Your task to perform on an android device: Open Wikipedia Image 0: 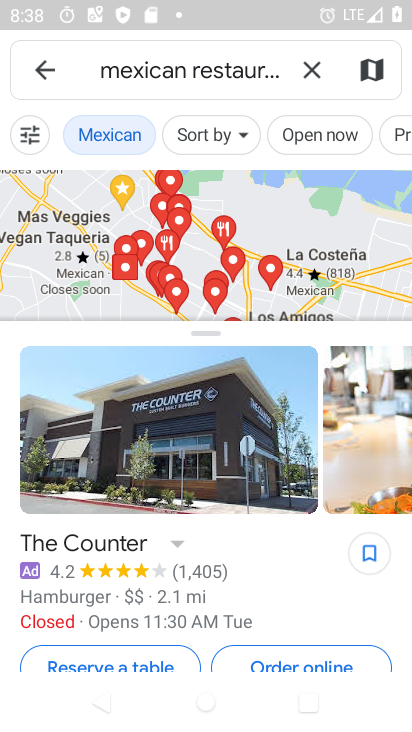
Step 0: press home button
Your task to perform on an android device: Open Wikipedia Image 1: 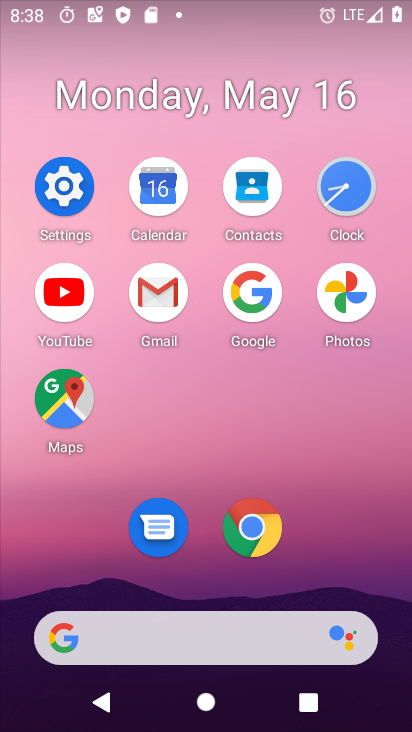
Step 1: click (249, 546)
Your task to perform on an android device: Open Wikipedia Image 2: 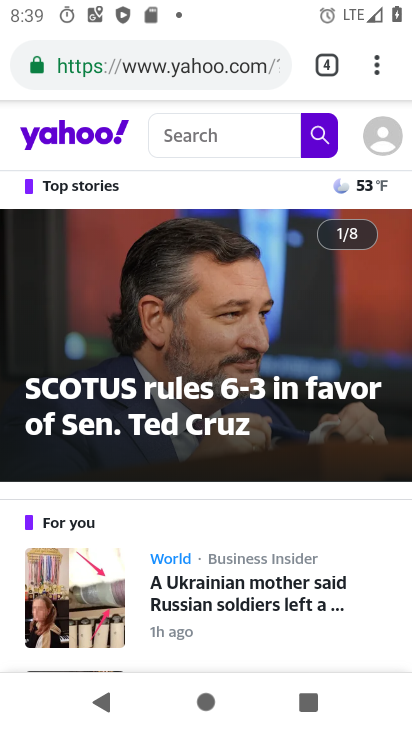
Step 2: click (321, 59)
Your task to perform on an android device: Open Wikipedia Image 3: 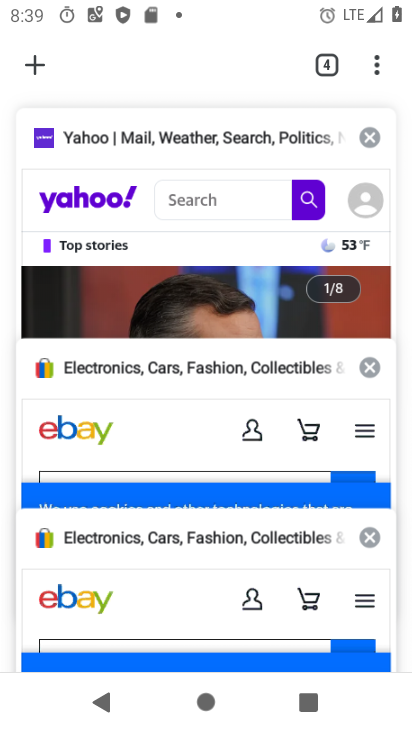
Step 3: click (25, 58)
Your task to perform on an android device: Open Wikipedia Image 4: 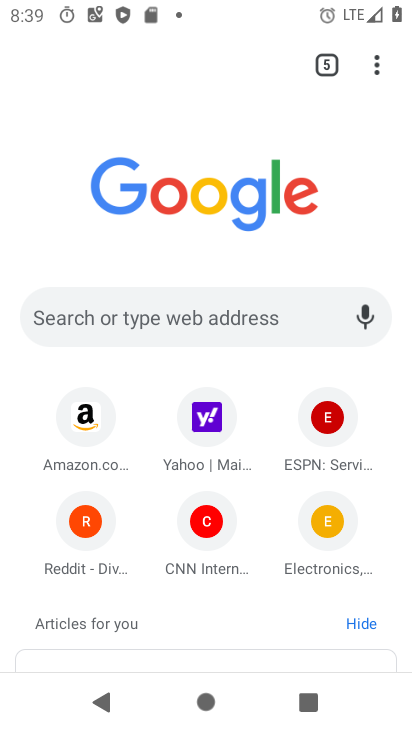
Step 4: click (171, 313)
Your task to perform on an android device: Open Wikipedia Image 5: 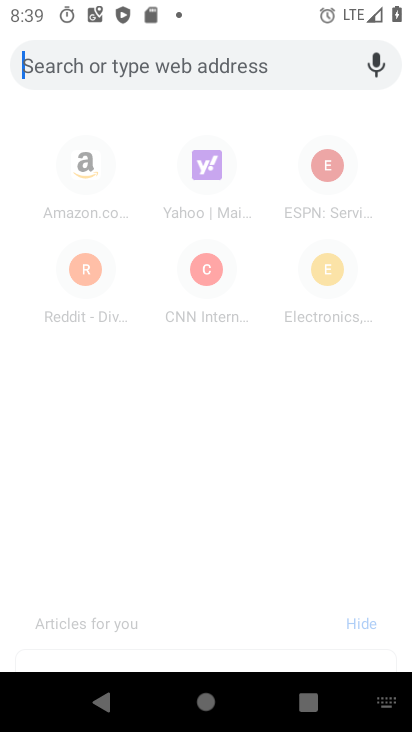
Step 5: type "wikipedia"
Your task to perform on an android device: Open Wikipedia Image 6: 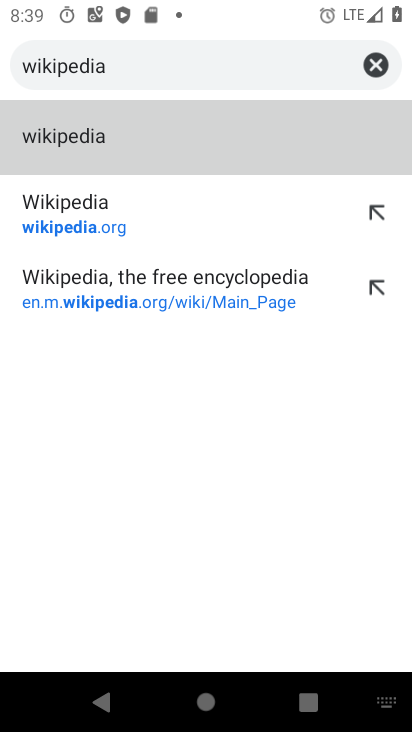
Step 6: click (103, 211)
Your task to perform on an android device: Open Wikipedia Image 7: 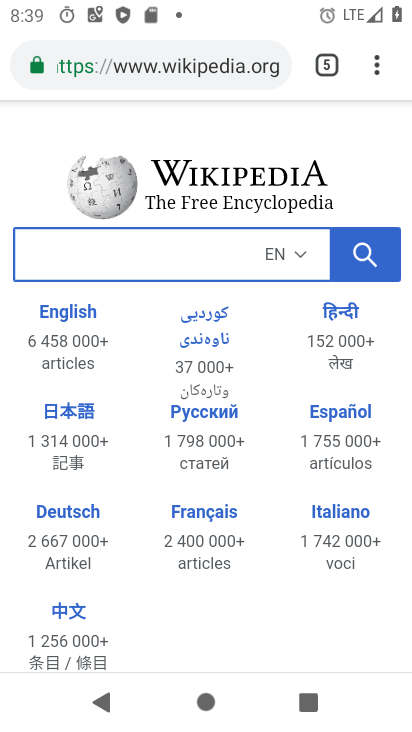
Step 7: task complete